Your task to perform on an android device: toggle translation in the chrome app Image 0: 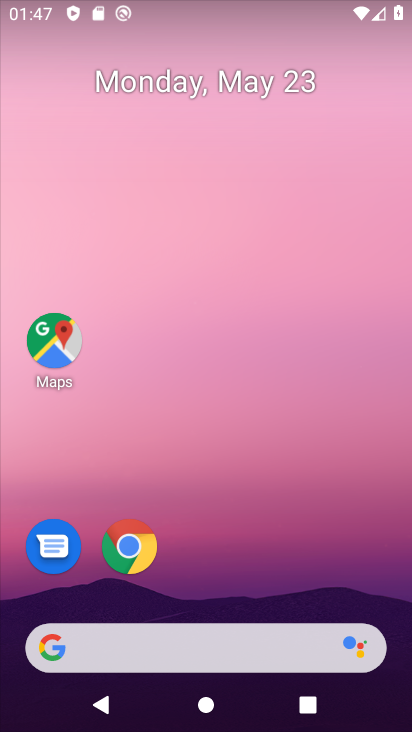
Step 0: click (125, 547)
Your task to perform on an android device: toggle translation in the chrome app Image 1: 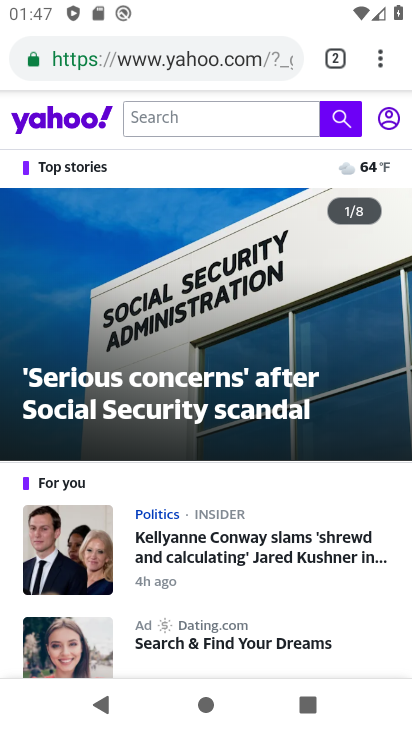
Step 1: drag from (385, 61) to (174, 564)
Your task to perform on an android device: toggle translation in the chrome app Image 2: 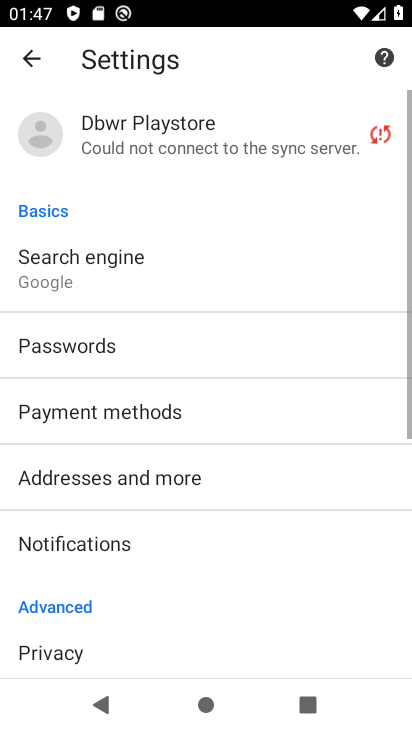
Step 2: drag from (159, 602) to (220, 183)
Your task to perform on an android device: toggle translation in the chrome app Image 3: 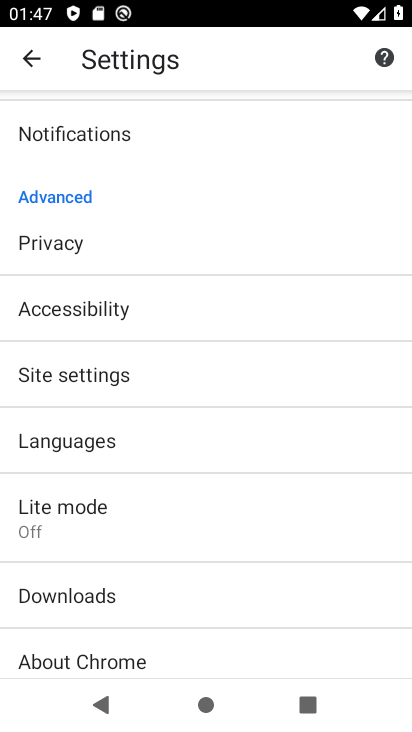
Step 3: click (68, 435)
Your task to perform on an android device: toggle translation in the chrome app Image 4: 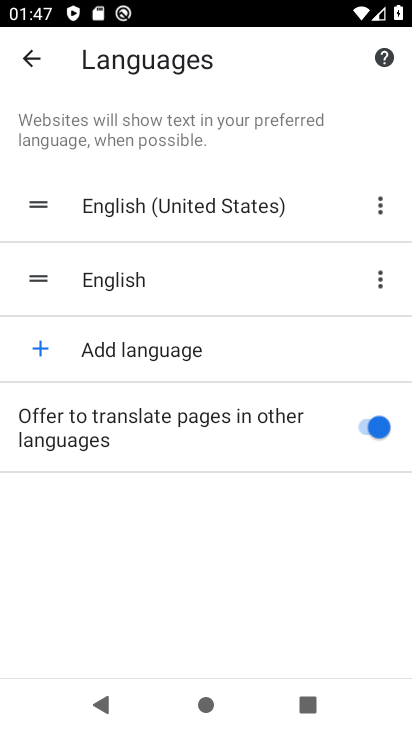
Step 4: click (363, 424)
Your task to perform on an android device: toggle translation in the chrome app Image 5: 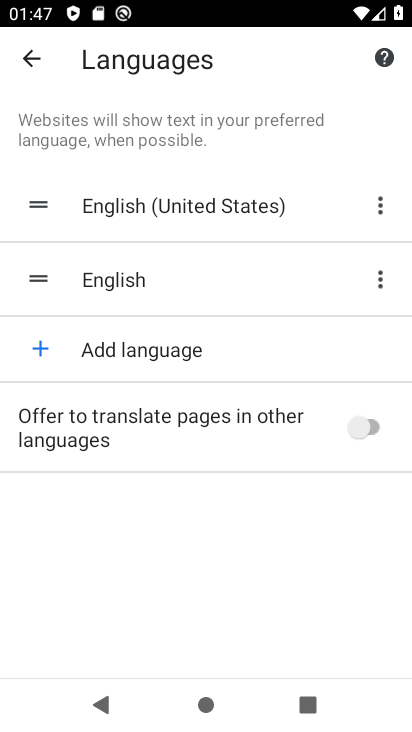
Step 5: task complete